Your task to perform on an android device: all mails in gmail Image 0: 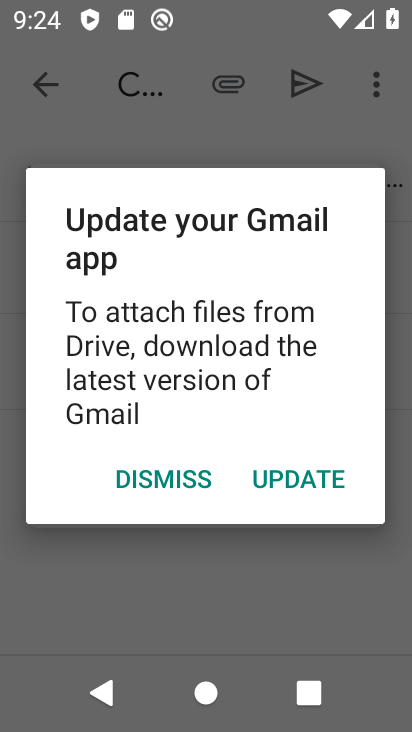
Step 0: press home button
Your task to perform on an android device: all mails in gmail Image 1: 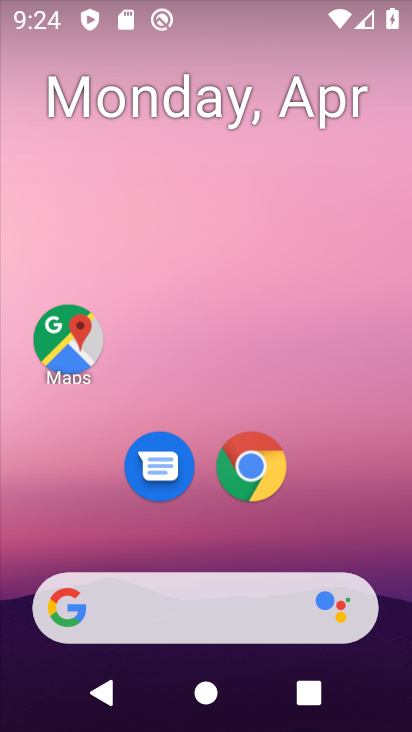
Step 1: drag from (229, 517) to (306, 73)
Your task to perform on an android device: all mails in gmail Image 2: 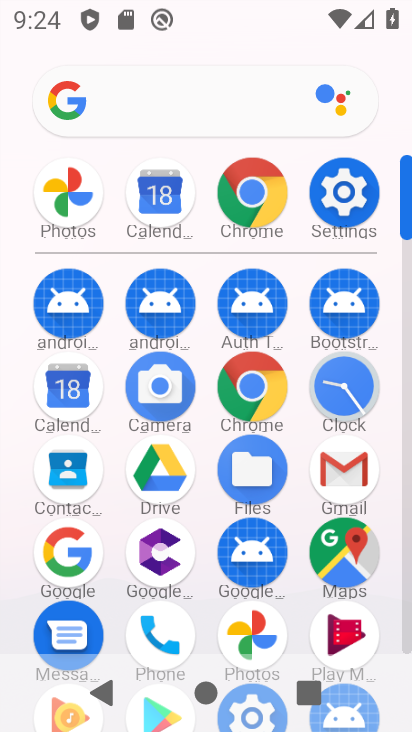
Step 2: click (349, 501)
Your task to perform on an android device: all mails in gmail Image 3: 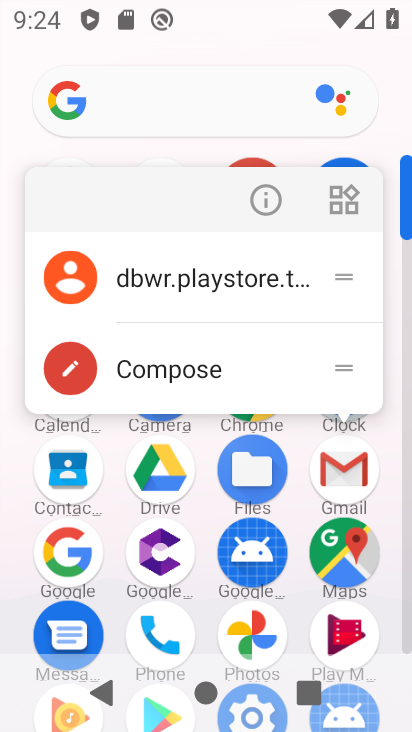
Step 3: click (348, 501)
Your task to perform on an android device: all mails in gmail Image 4: 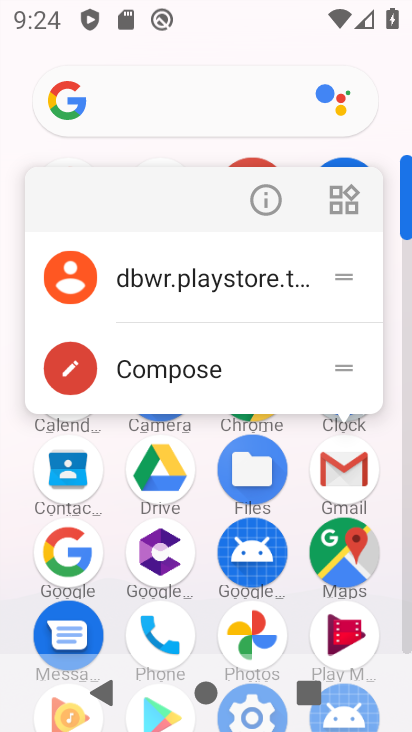
Step 4: click (342, 481)
Your task to perform on an android device: all mails in gmail Image 5: 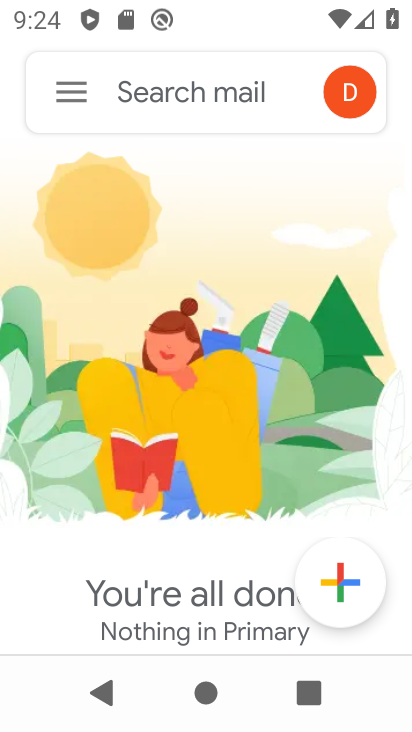
Step 5: click (65, 102)
Your task to perform on an android device: all mails in gmail Image 6: 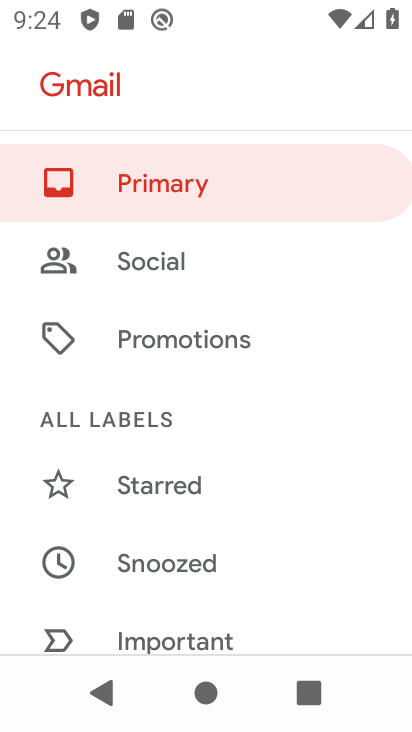
Step 6: drag from (135, 530) to (214, 394)
Your task to perform on an android device: all mails in gmail Image 7: 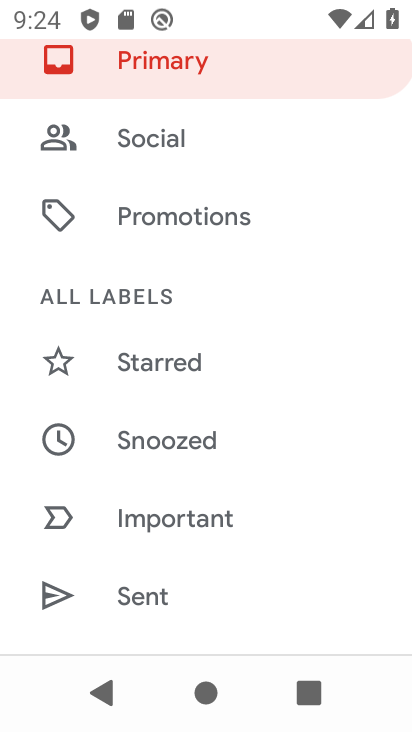
Step 7: drag from (201, 513) to (230, 401)
Your task to perform on an android device: all mails in gmail Image 8: 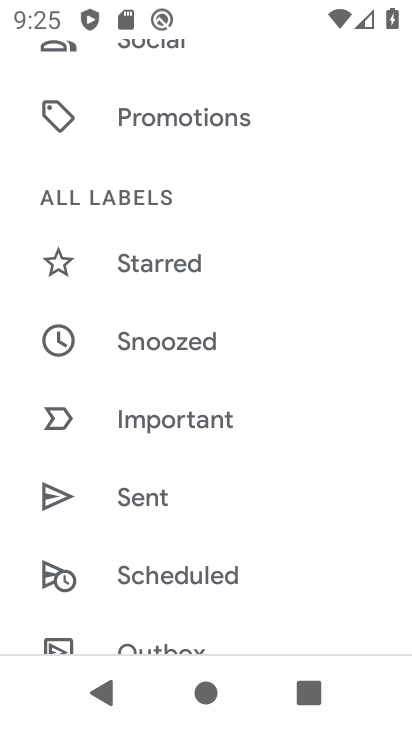
Step 8: drag from (202, 502) to (246, 393)
Your task to perform on an android device: all mails in gmail Image 9: 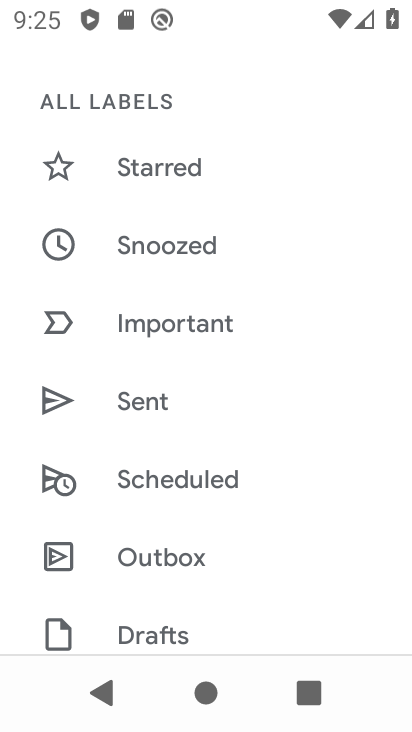
Step 9: drag from (181, 512) to (225, 371)
Your task to perform on an android device: all mails in gmail Image 10: 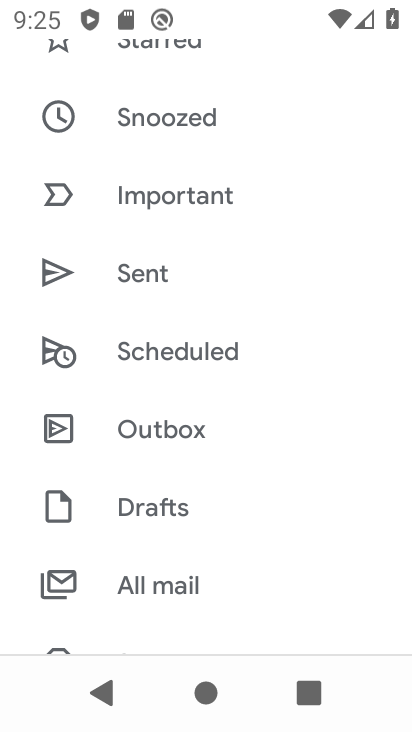
Step 10: drag from (208, 486) to (252, 379)
Your task to perform on an android device: all mails in gmail Image 11: 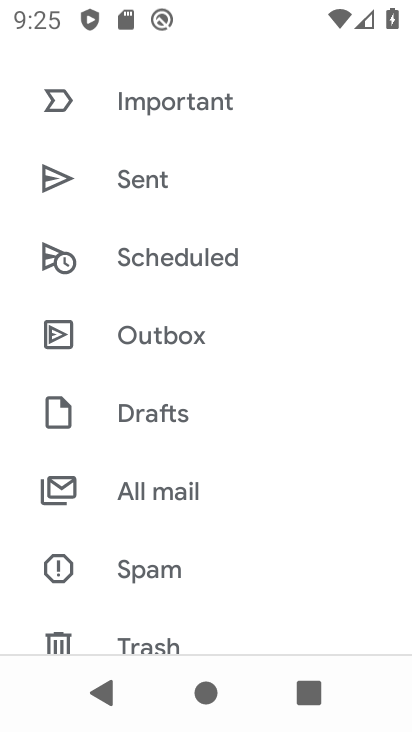
Step 11: click (172, 512)
Your task to perform on an android device: all mails in gmail Image 12: 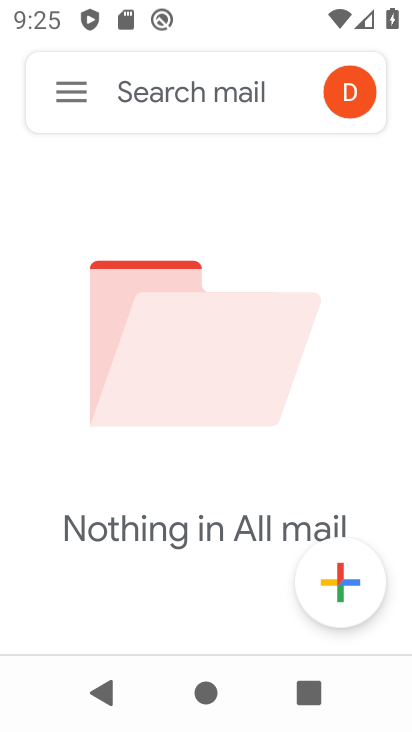
Step 12: task complete